Your task to perform on an android device: Go to privacy settings Image 0: 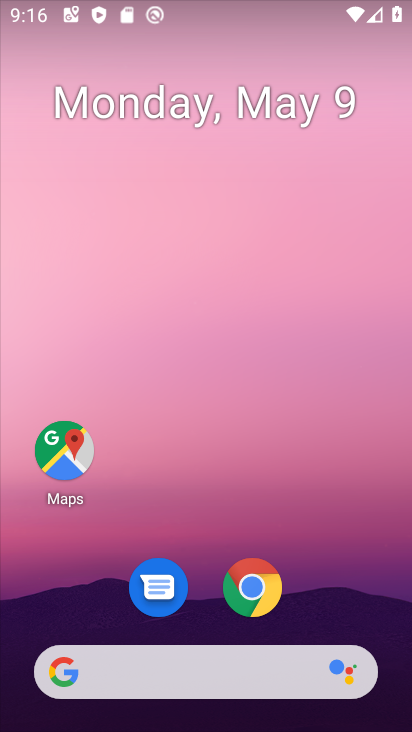
Step 0: drag from (202, 618) to (344, 28)
Your task to perform on an android device: Go to privacy settings Image 1: 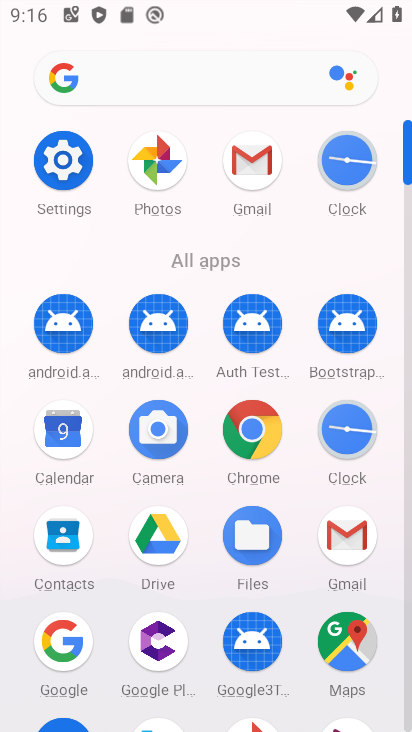
Step 1: click (69, 194)
Your task to perform on an android device: Go to privacy settings Image 2: 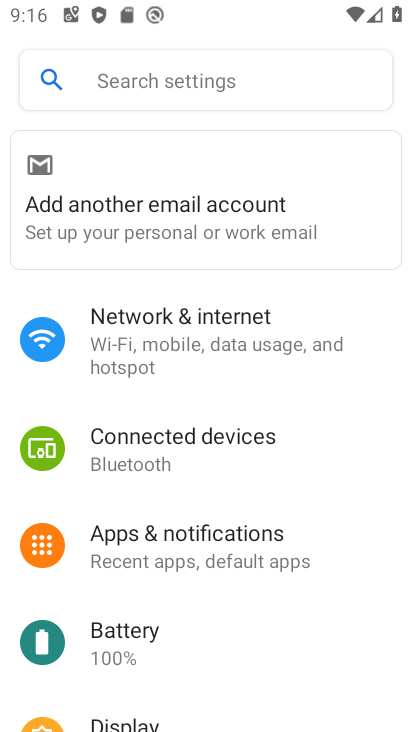
Step 2: drag from (156, 691) to (218, 0)
Your task to perform on an android device: Go to privacy settings Image 3: 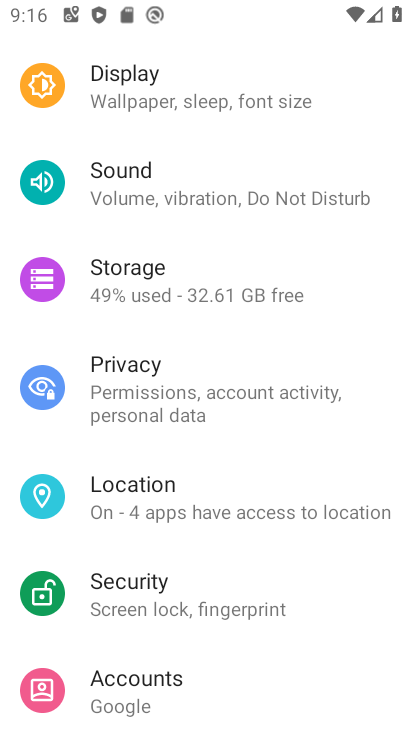
Step 3: drag from (169, 660) to (196, 373)
Your task to perform on an android device: Go to privacy settings Image 4: 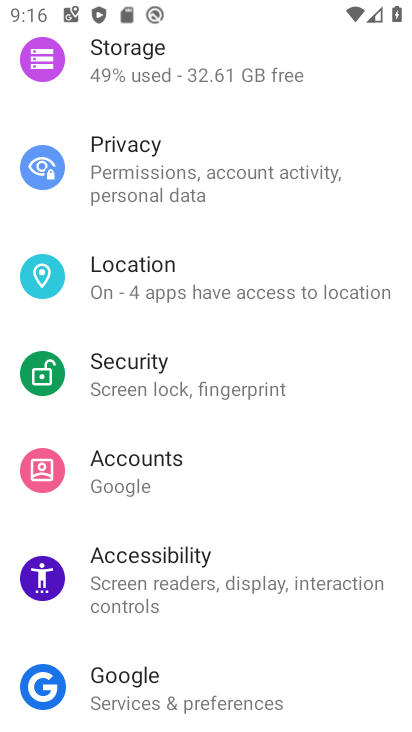
Step 4: click (124, 189)
Your task to perform on an android device: Go to privacy settings Image 5: 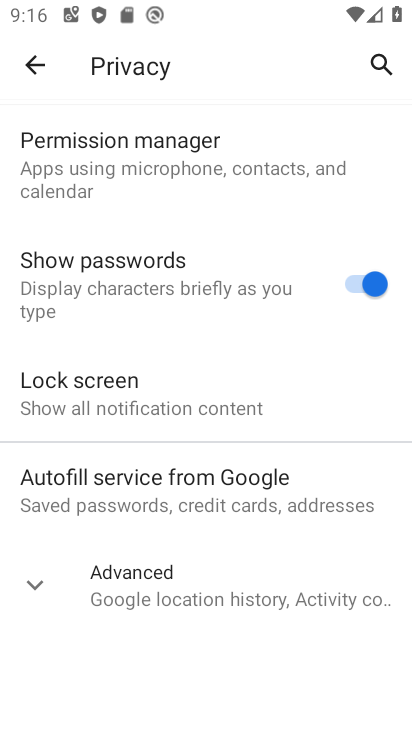
Step 5: task complete